Your task to perform on an android device: Is it going to rain tomorrow? Image 0: 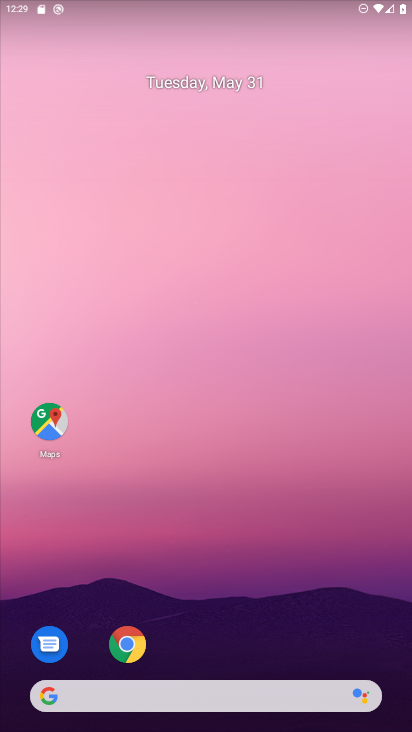
Step 0: drag from (214, 542) to (275, 5)
Your task to perform on an android device: Is it going to rain tomorrow? Image 1: 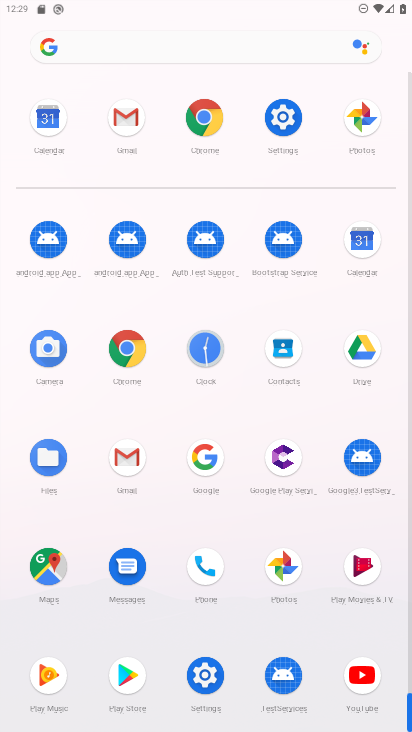
Step 1: click (363, 243)
Your task to perform on an android device: Is it going to rain tomorrow? Image 2: 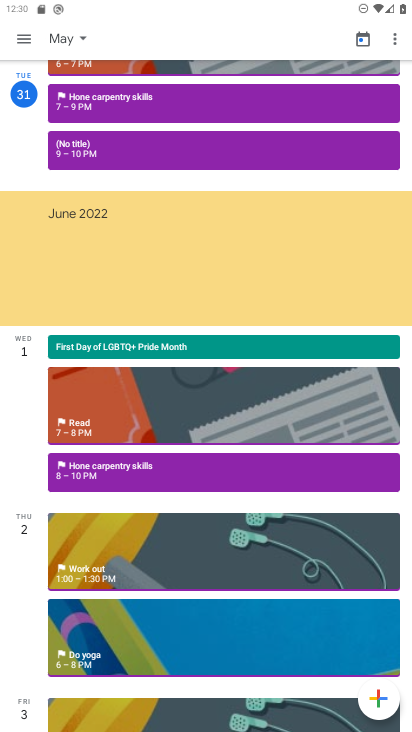
Step 2: click (69, 34)
Your task to perform on an android device: Is it going to rain tomorrow? Image 3: 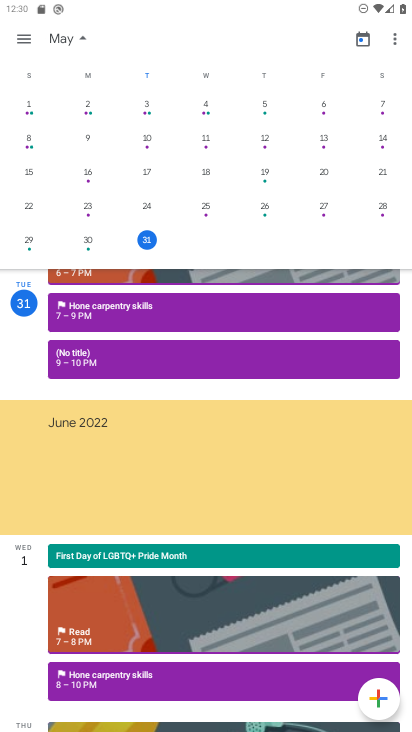
Step 3: drag from (367, 138) to (25, 129)
Your task to perform on an android device: Is it going to rain tomorrow? Image 4: 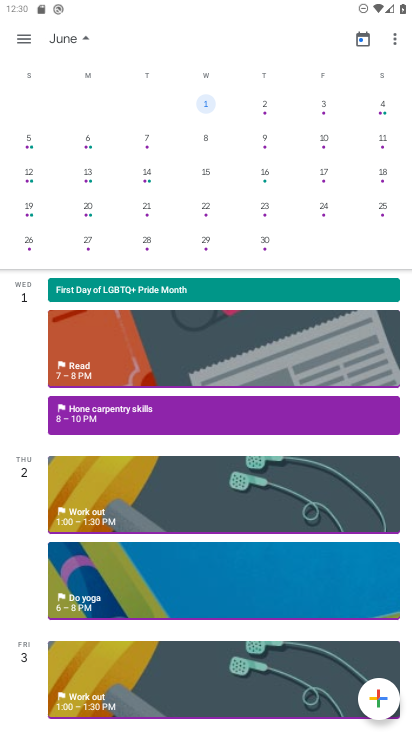
Step 4: click (206, 102)
Your task to perform on an android device: Is it going to rain tomorrow? Image 5: 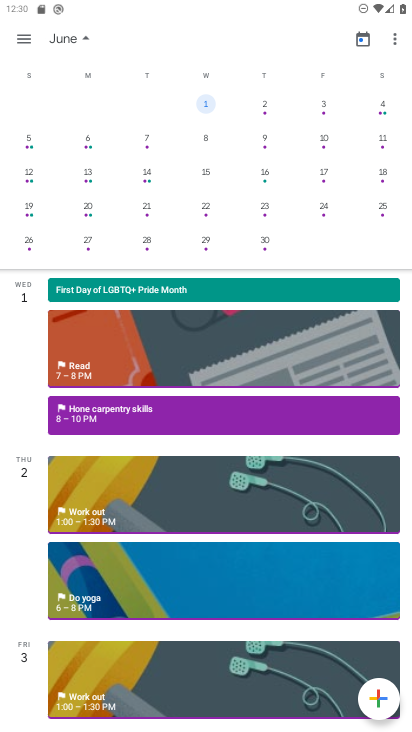
Step 5: task complete